Your task to perform on an android device: Search for the best rated 2021 Samsung Galaxy S21 Ultra on AliExpress Image 0: 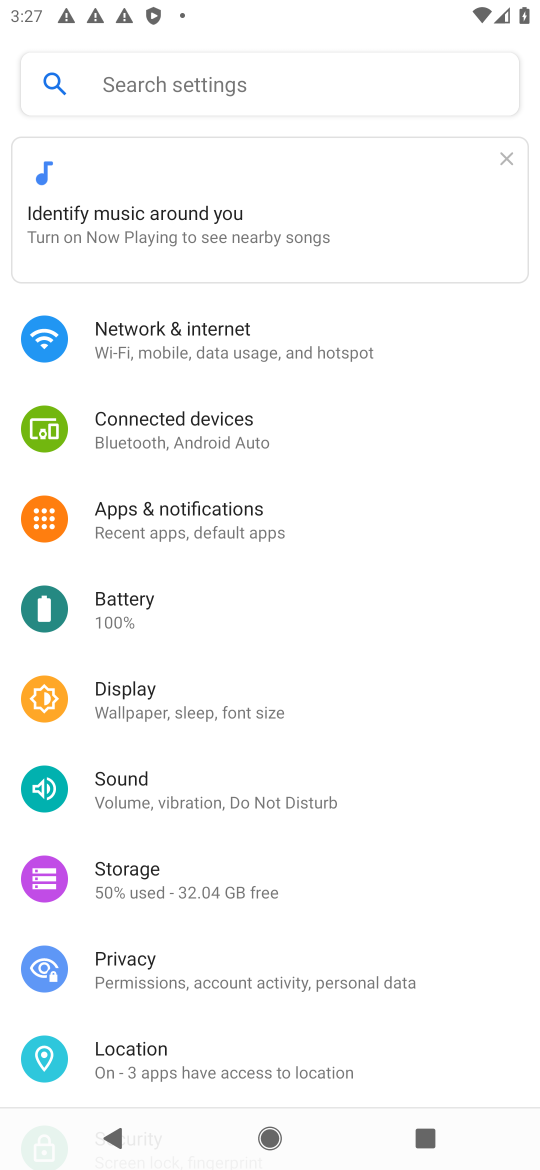
Step 0: press home button
Your task to perform on an android device: Search for the best rated 2021 Samsung Galaxy S21 Ultra on AliExpress Image 1: 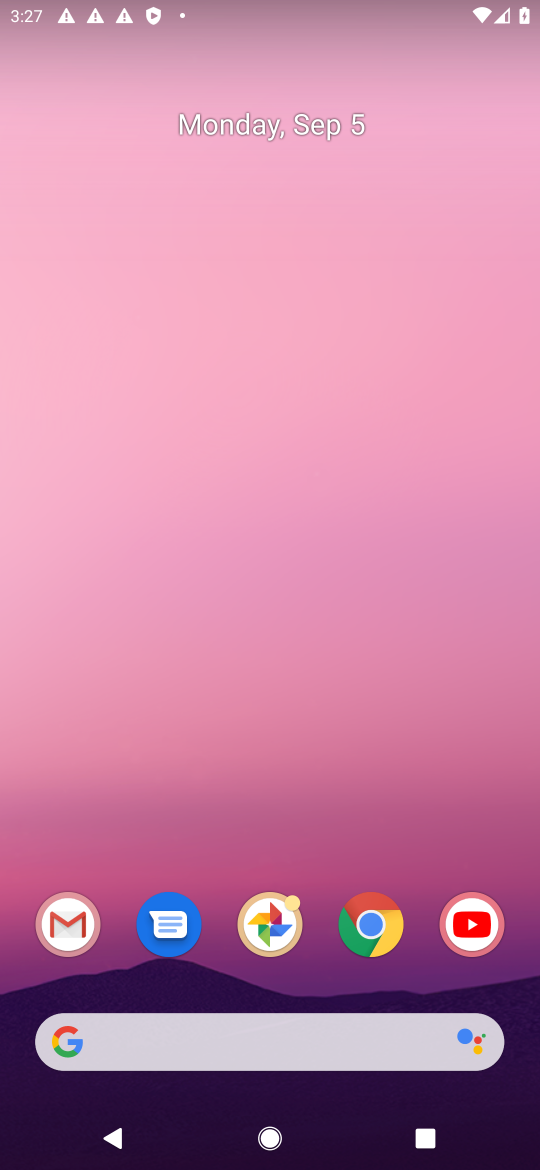
Step 1: click (374, 929)
Your task to perform on an android device: Search for the best rated 2021 Samsung Galaxy S21 Ultra on AliExpress Image 2: 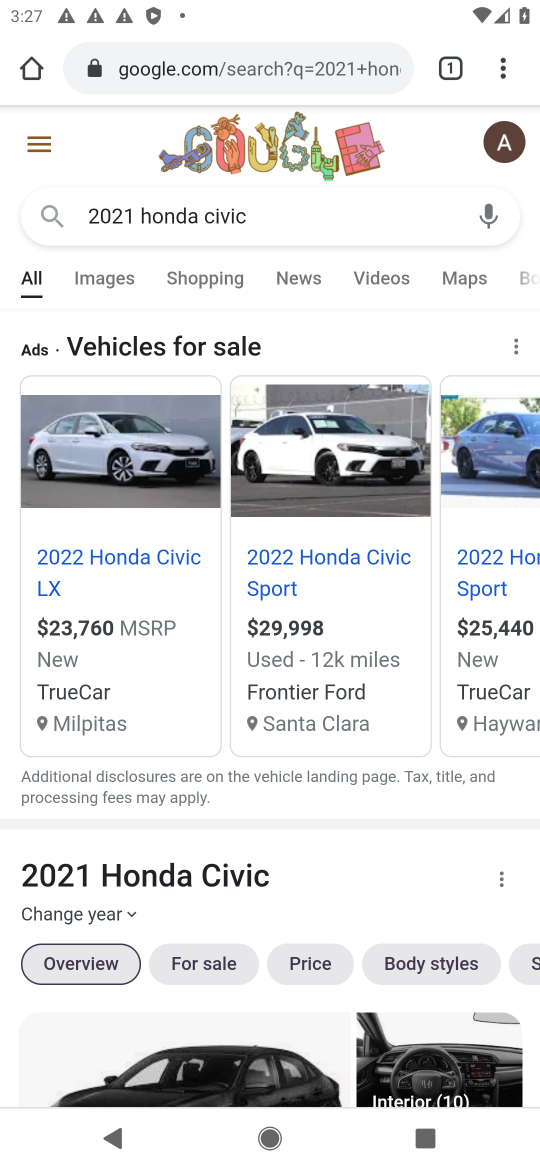
Step 2: click (355, 76)
Your task to perform on an android device: Search for the best rated 2021 Samsung Galaxy S21 Ultra on AliExpress Image 3: 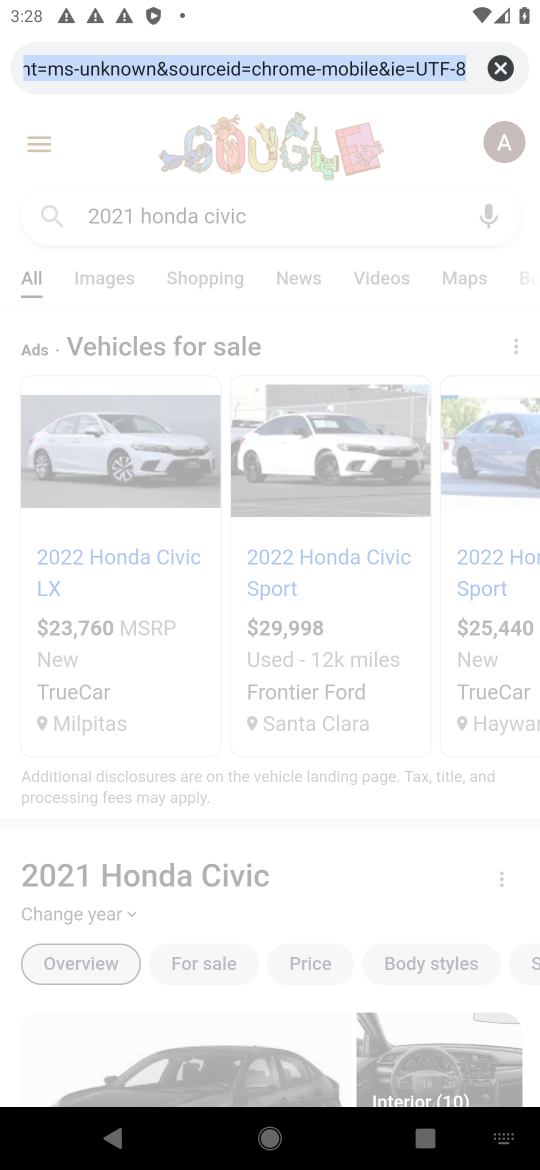
Step 3: type ""
Your task to perform on an android device: Search for the best rated 2021 Samsung Galaxy S21 Ultra on AliExpress Image 4: 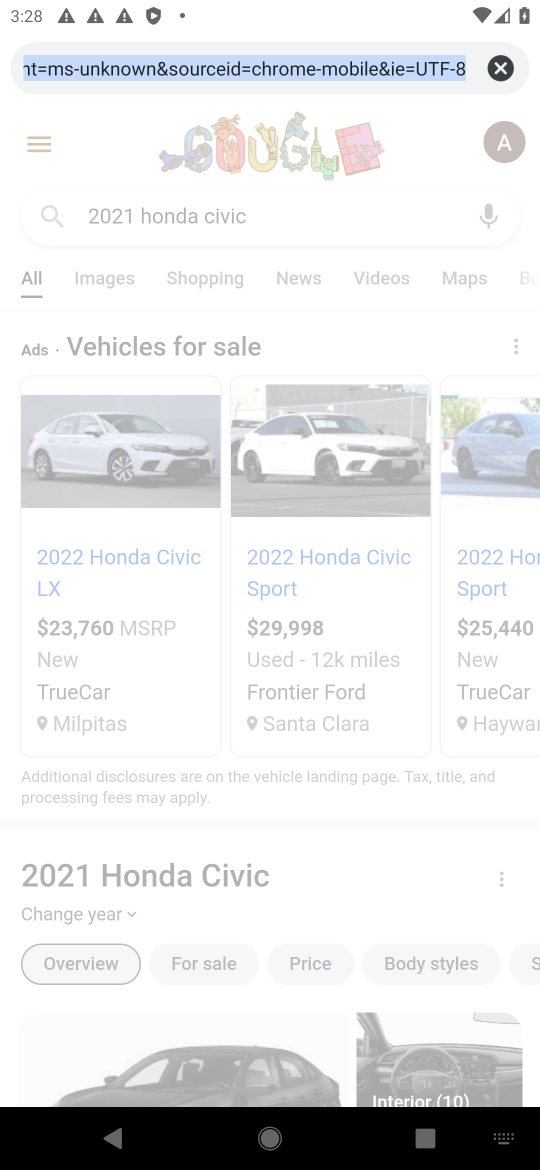
Step 4: type "aliexpress"
Your task to perform on an android device: Search for the best rated 2021 Samsung Galaxy S21 Ultra on AliExpress Image 5: 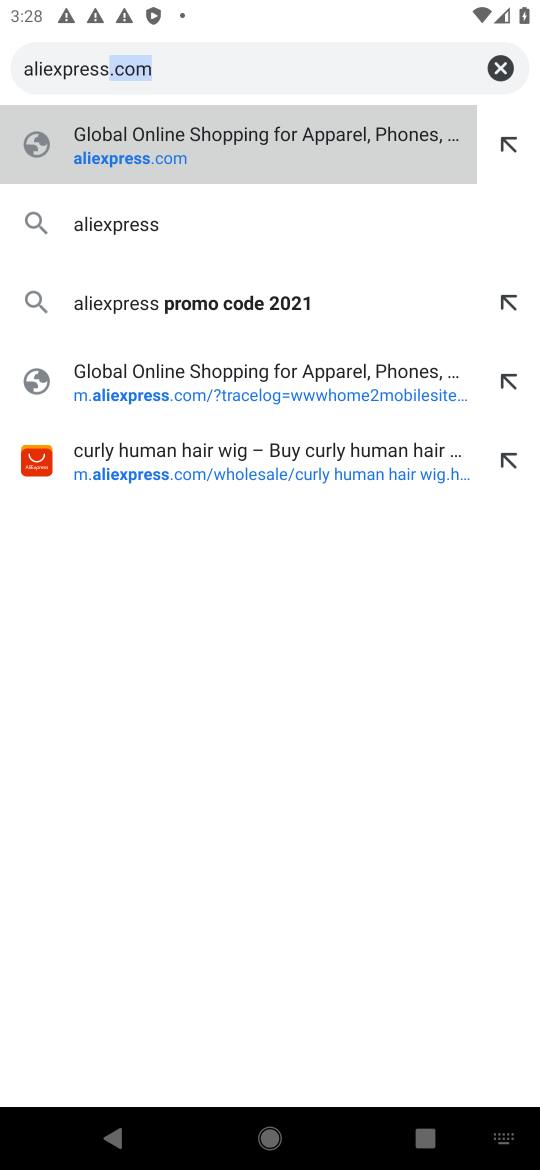
Step 5: click (226, 143)
Your task to perform on an android device: Search for the best rated 2021 Samsung Galaxy S21 Ultra on AliExpress Image 6: 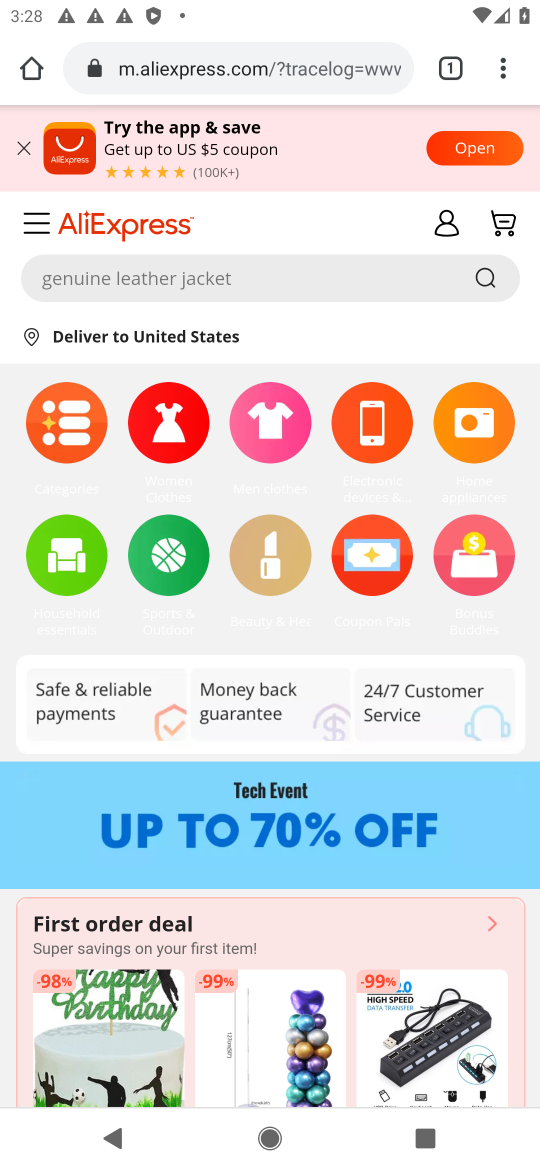
Step 6: click (299, 280)
Your task to perform on an android device: Search for the best rated 2021 Samsung Galaxy S21 Ultra on AliExpress Image 7: 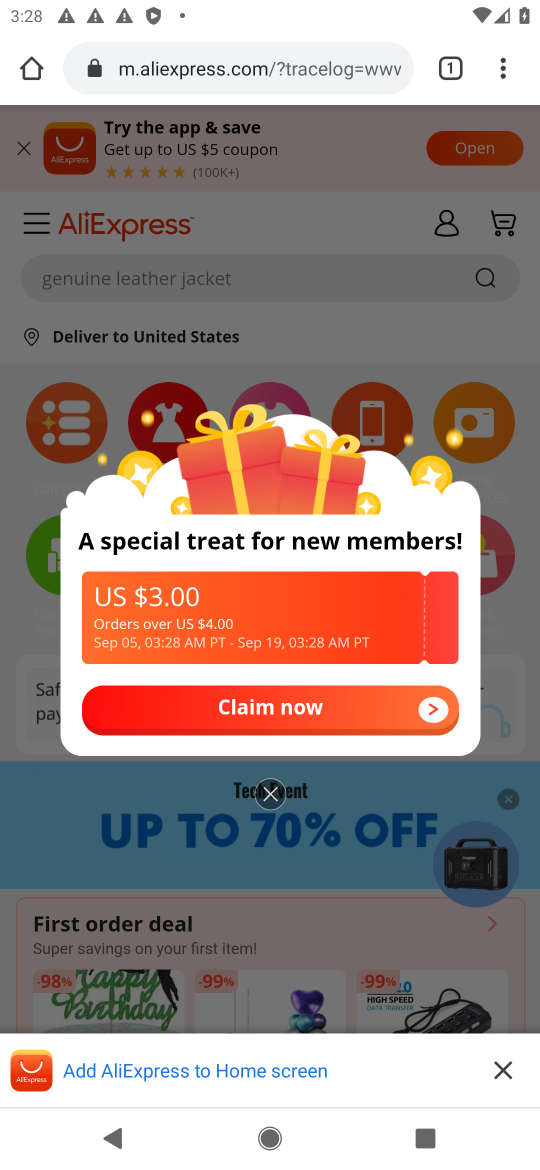
Step 7: click (272, 796)
Your task to perform on an android device: Search for the best rated 2021 Samsung Galaxy S21 Ultra on AliExpress Image 8: 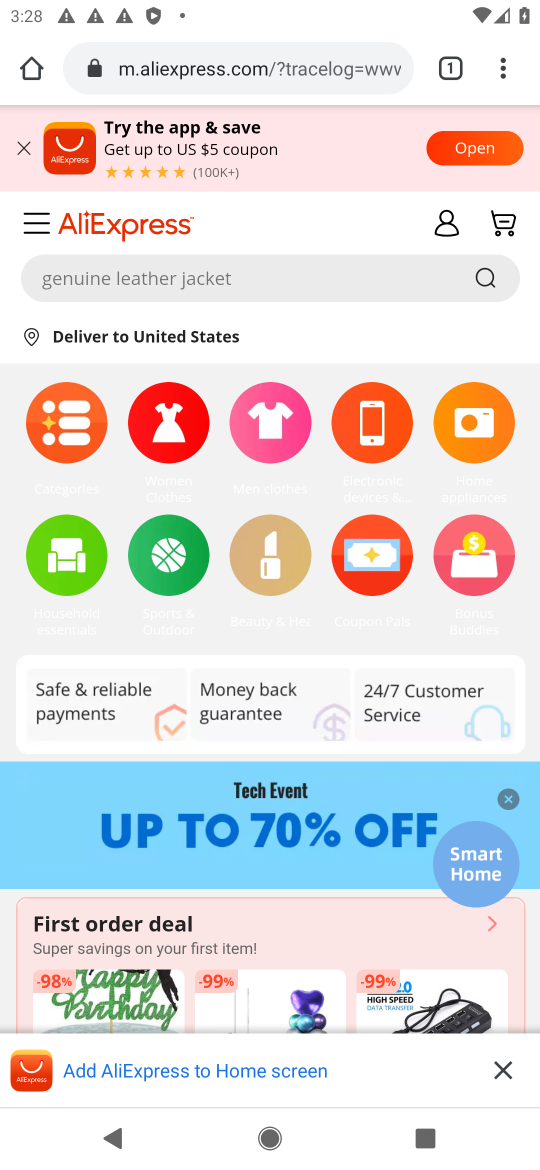
Step 8: click (177, 281)
Your task to perform on an android device: Search for the best rated 2021 Samsung Galaxy S21 Ultra on AliExpress Image 9: 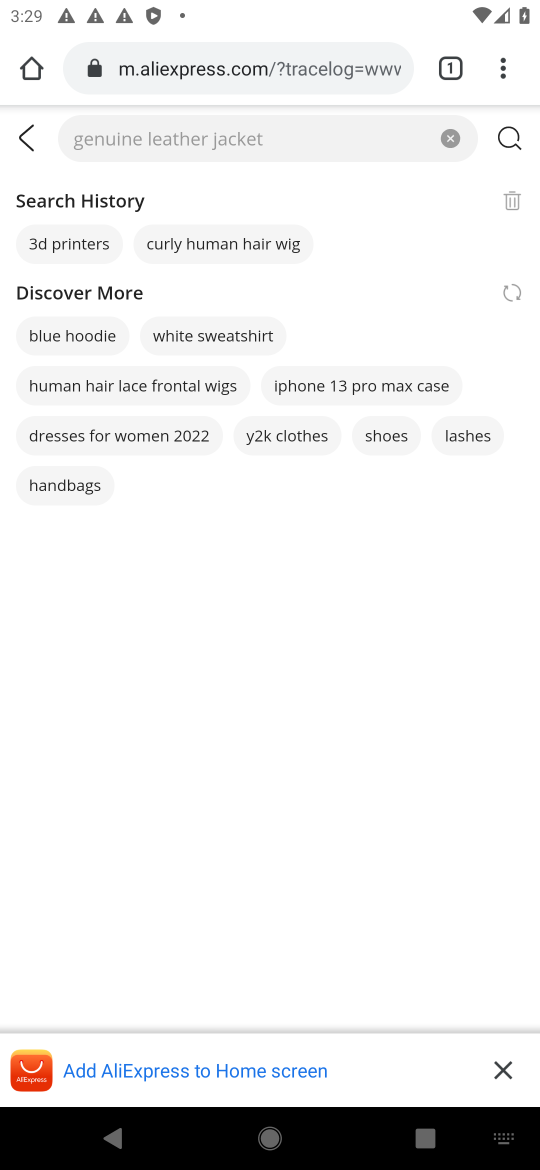
Step 9: type "best rated 2021 Samsung Galaxy S21 Ultra "
Your task to perform on an android device: Search for the best rated 2021 Samsung Galaxy S21 Ultra on AliExpress Image 10: 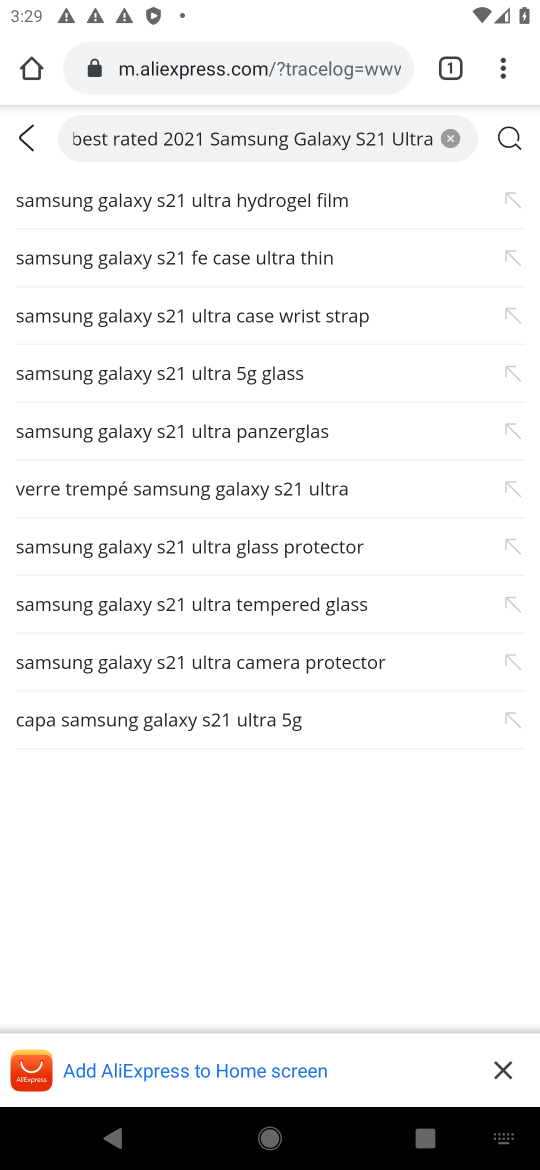
Step 10: click (509, 149)
Your task to perform on an android device: Search for the best rated 2021 Samsung Galaxy S21 Ultra on AliExpress Image 11: 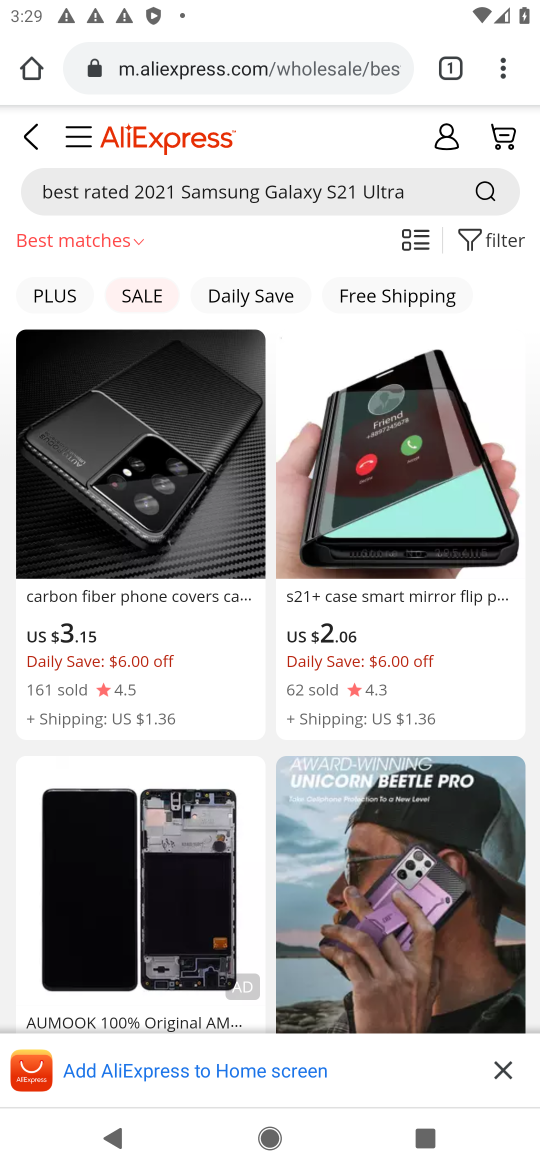
Step 11: task complete